Your task to perform on an android device: Go to eBay Image 0: 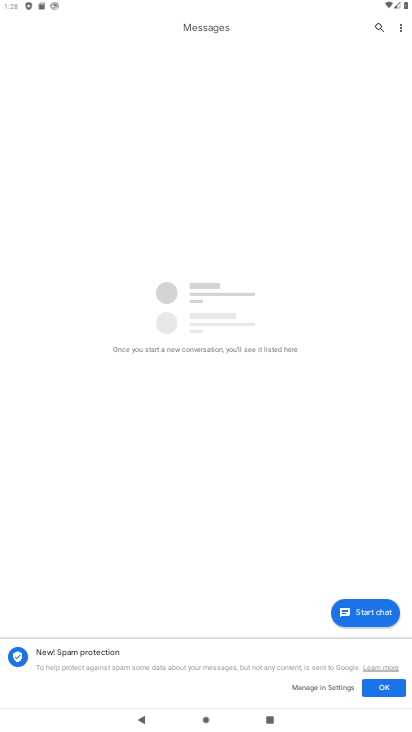
Step 0: press home button
Your task to perform on an android device: Go to eBay Image 1: 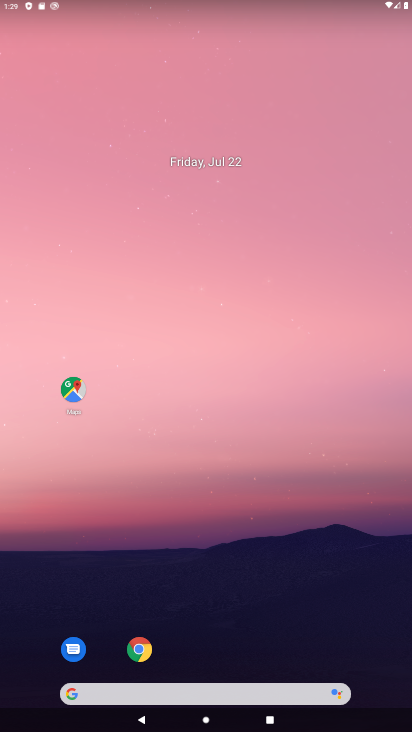
Step 1: click (148, 653)
Your task to perform on an android device: Go to eBay Image 2: 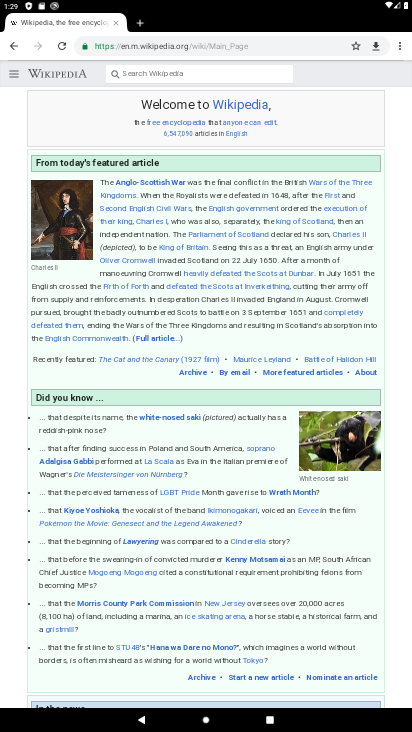
Step 2: click (142, 22)
Your task to perform on an android device: Go to eBay Image 3: 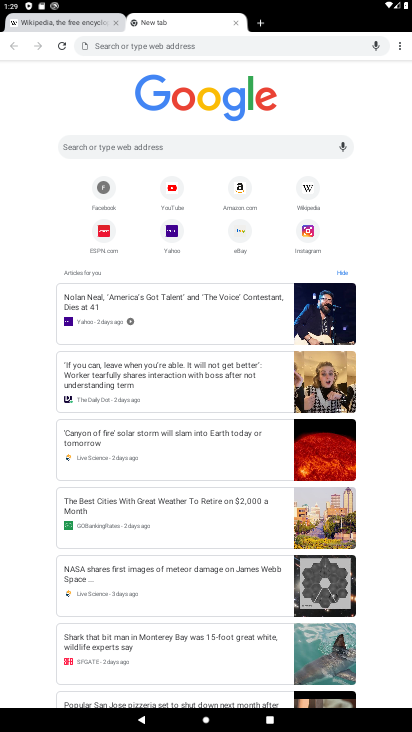
Step 3: click (115, 26)
Your task to perform on an android device: Go to eBay Image 4: 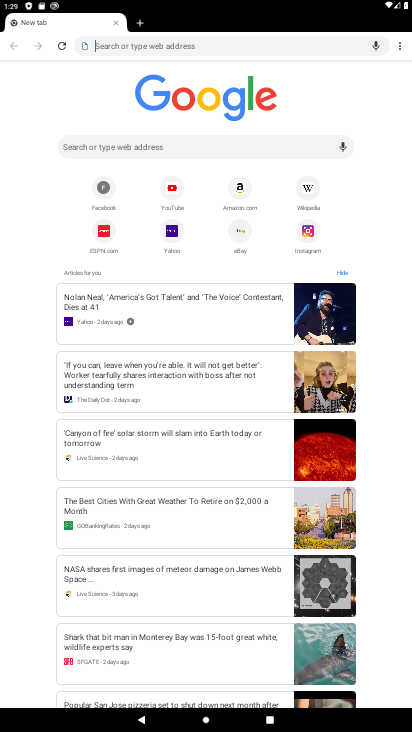
Step 4: click (235, 230)
Your task to perform on an android device: Go to eBay Image 5: 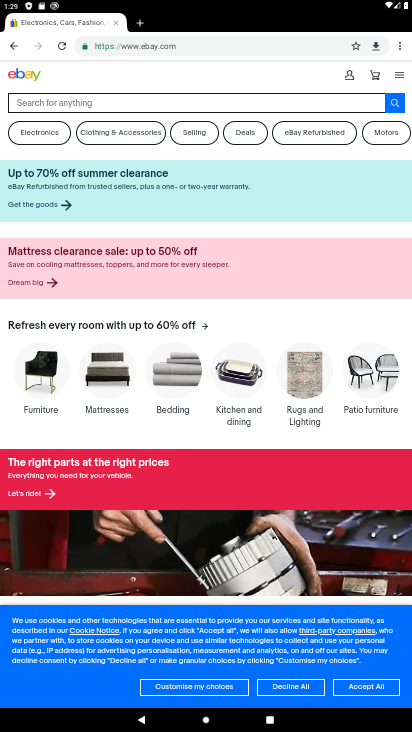
Step 5: task complete